Your task to perform on an android device: check storage Image 0: 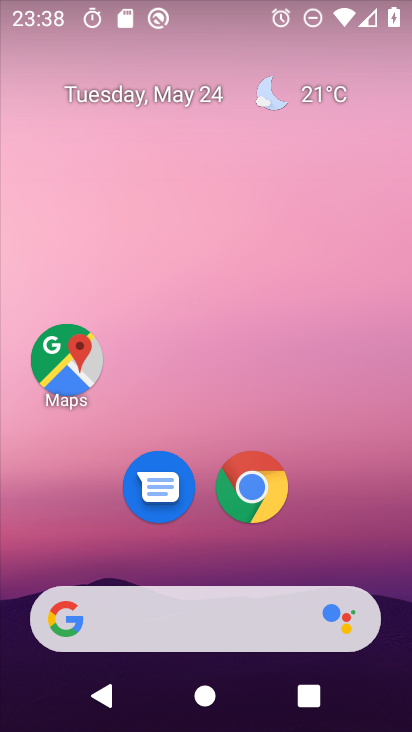
Step 0: drag from (379, 565) to (407, 623)
Your task to perform on an android device: check storage Image 1: 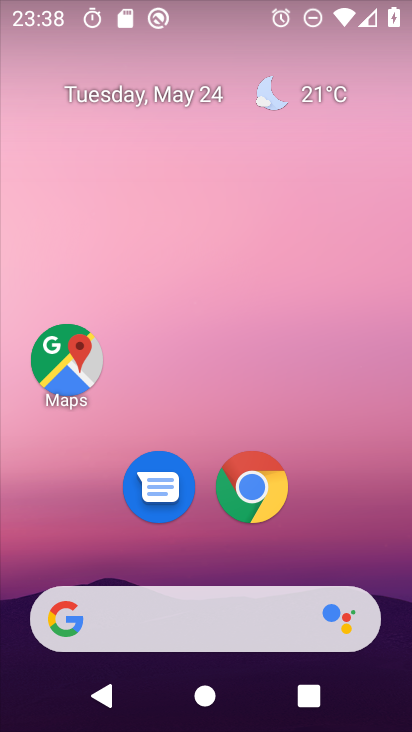
Step 1: drag from (357, 566) to (370, 0)
Your task to perform on an android device: check storage Image 2: 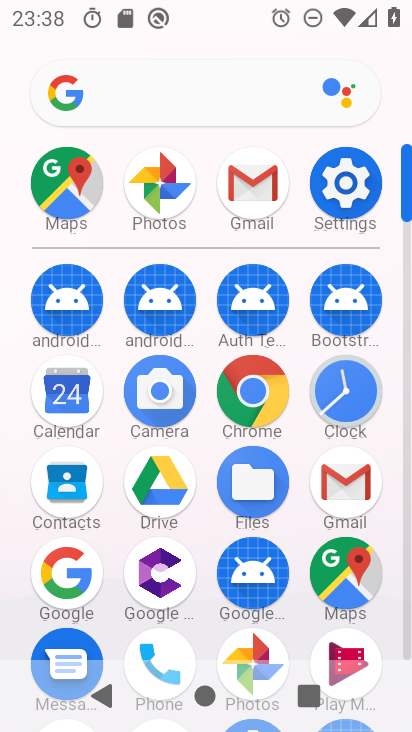
Step 2: click (347, 187)
Your task to perform on an android device: check storage Image 3: 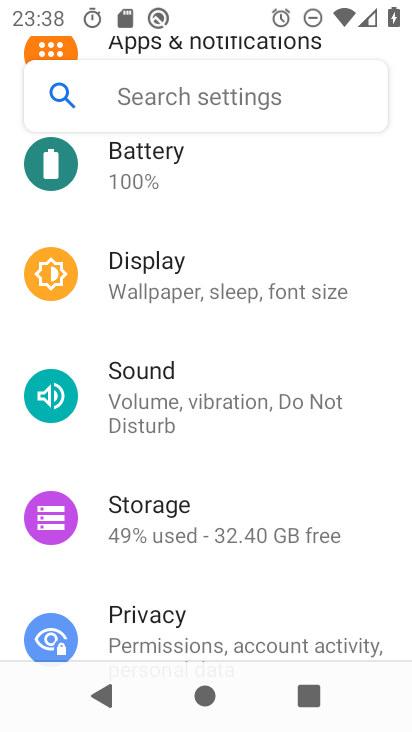
Step 3: click (155, 528)
Your task to perform on an android device: check storage Image 4: 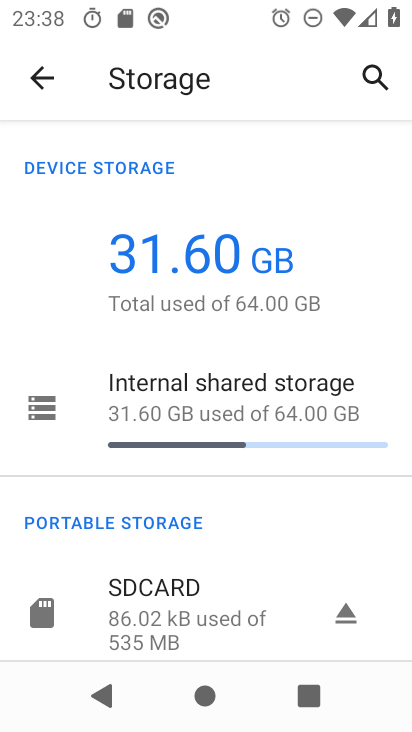
Step 4: click (200, 415)
Your task to perform on an android device: check storage Image 5: 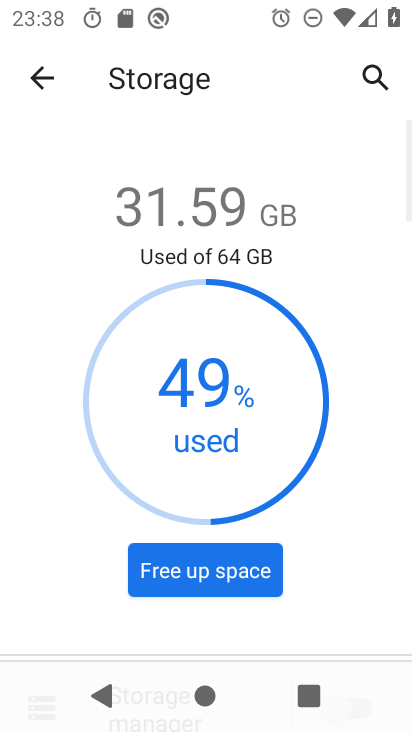
Step 5: task complete